Your task to perform on an android device: delete the emails in spam in the gmail app Image 0: 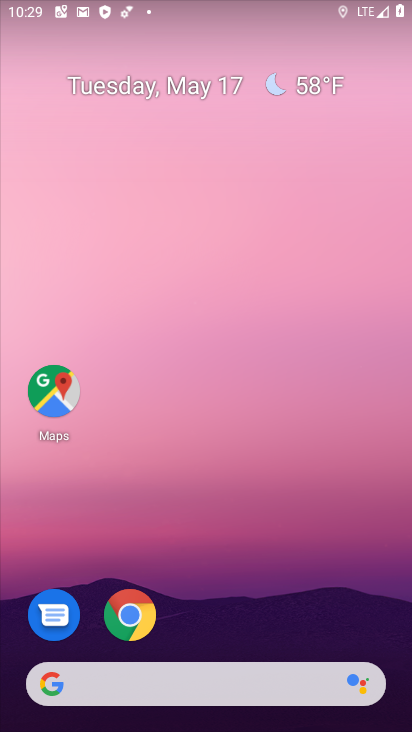
Step 0: drag from (211, 623) to (226, 198)
Your task to perform on an android device: delete the emails in spam in the gmail app Image 1: 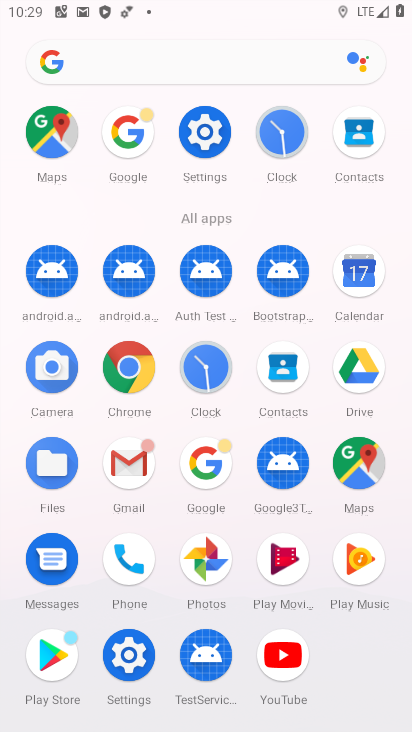
Step 1: click (120, 442)
Your task to perform on an android device: delete the emails in spam in the gmail app Image 2: 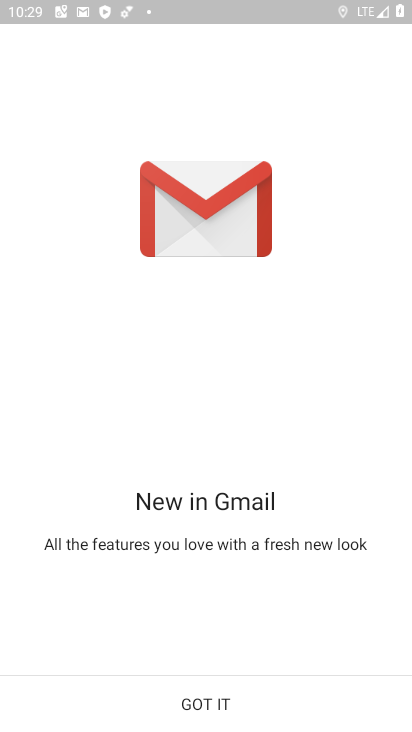
Step 2: click (218, 702)
Your task to perform on an android device: delete the emails in spam in the gmail app Image 3: 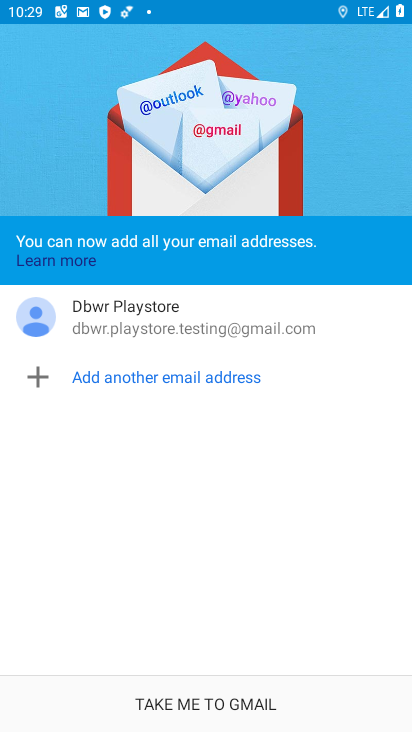
Step 3: click (242, 706)
Your task to perform on an android device: delete the emails in spam in the gmail app Image 4: 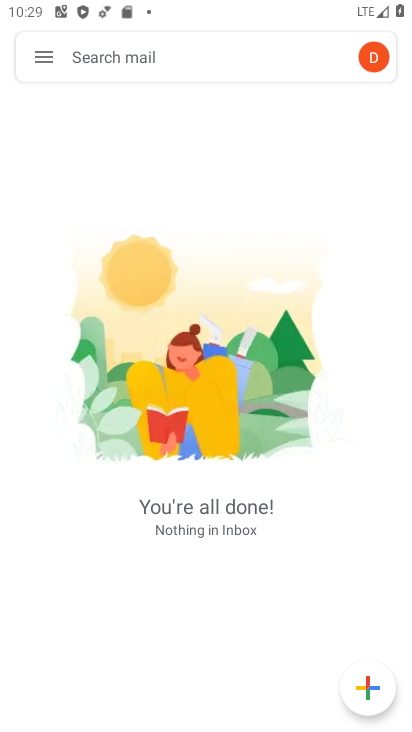
Step 4: click (45, 63)
Your task to perform on an android device: delete the emails in spam in the gmail app Image 5: 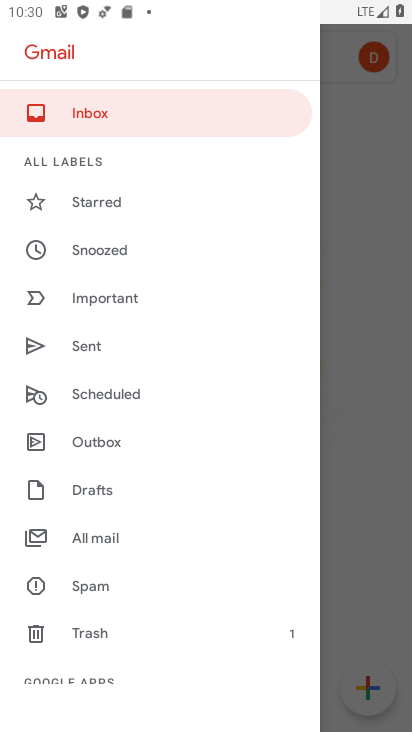
Step 5: click (98, 585)
Your task to perform on an android device: delete the emails in spam in the gmail app Image 6: 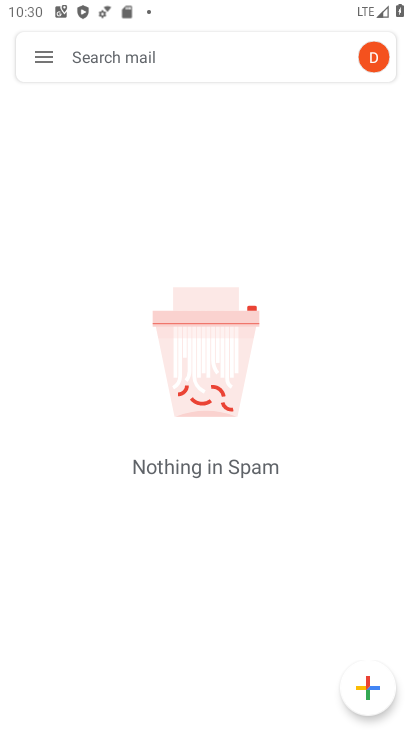
Step 6: task complete